Your task to perform on an android device: Clear the cart on ebay. Add razer blade to the cart on ebay, then select checkout. Image 0: 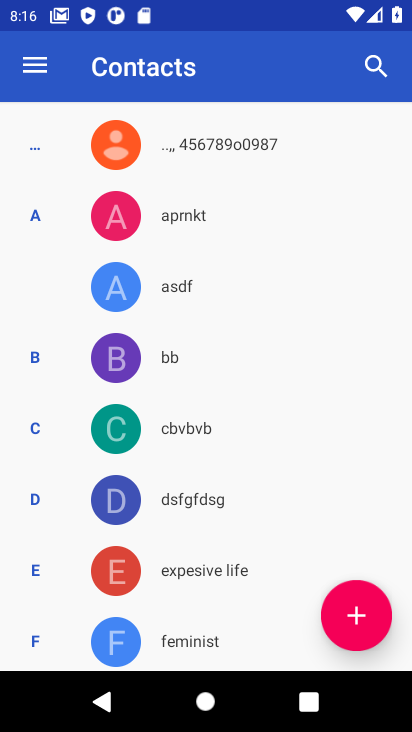
Step 0: press home button
Your task to perform on an android device: Clear the cart on ebay. Add razer blade to the cart on ebay, then select checkout. Image 1: 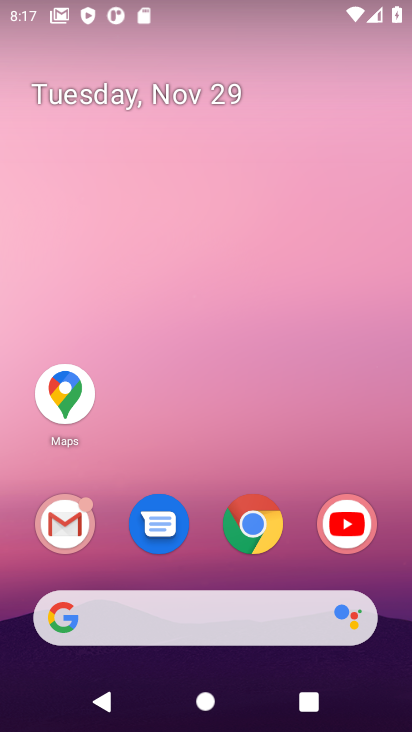
Step 1: click (253, 530)
Your task to perform on an android device: Clear the cart on ebay. Add razer blade to the cart on ebay, then select checkout. Image 2: 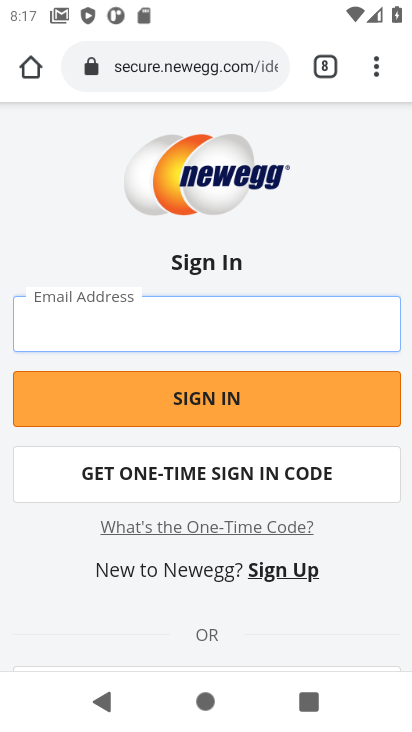
Step 2: click (199, 63)
Your task to perform on an android device: Clear the cart on ebay. Add razer blade to the cart on ebay, then select checkout. Image 3: 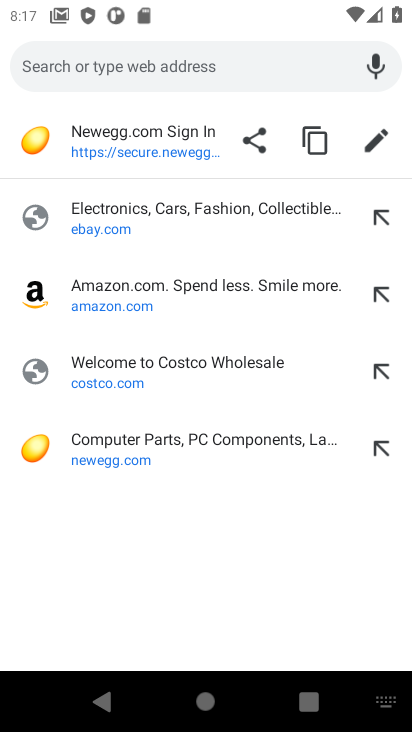
Step 3: click (85, 222)
Your task to perform on an android device: Clear the cart on ebay. Add razer blade to the cart on ebay, then select checkout. Image 4: 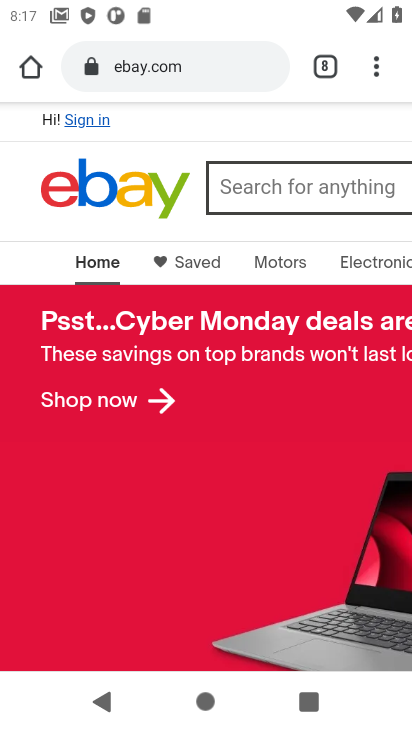
Step 4: drag from (203, 130) to (0, 207)
Your task to perform on an android device: Clear the cart on ebay. Add razer blade to the cart on ebay, then select checkout. Image 5: 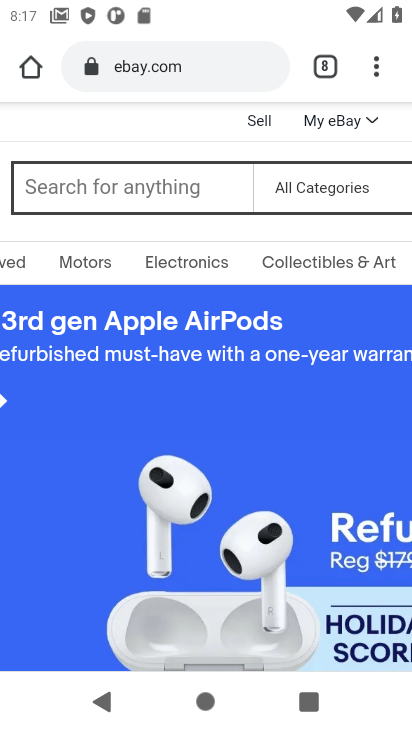
Step 5: drag from (344, 233) to (90, 241)
Your task to perform on an android device: Clear the cart on ebay. Add razer blade to the cart on ebay, then select checkout. Image 6: 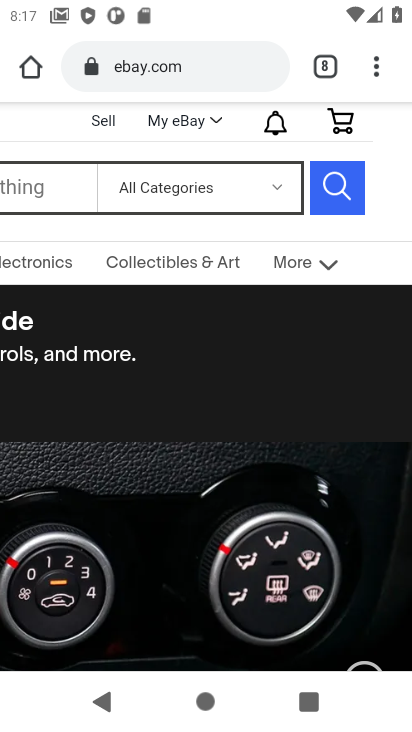
Step 6: click (351, 124)
Your task to perform on an android device: Clear the cart on ebay. Add razer blade to the cart on ebay, then select checkout. Image 7: 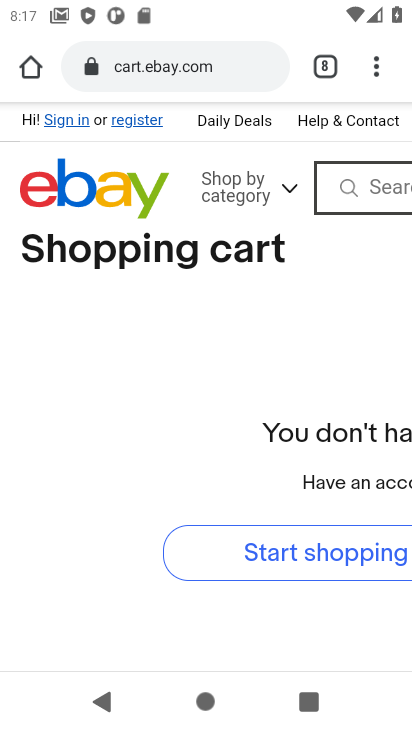
Step 7: click (334, 187)
Your task to perform on an android device: Clear the cart on ebay. Add razer blade to the cart on ebay, then select checkout. Image 8: 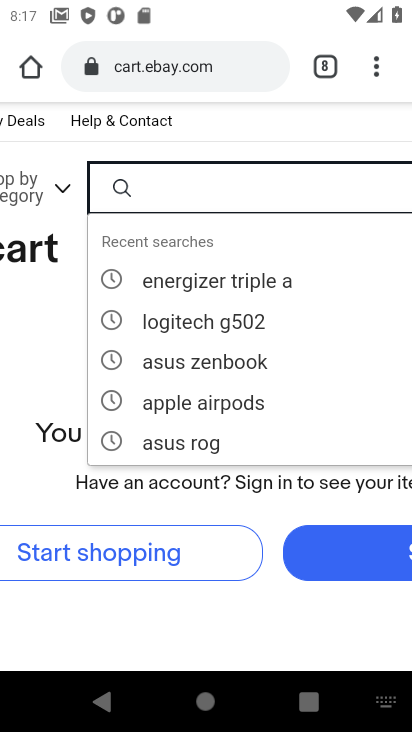
Step 8: type "razer blade"
Your task to perform on an android device: Clear the cart on ebay. Add razer blade to the cart on ebay, then select checkout. Image 9: 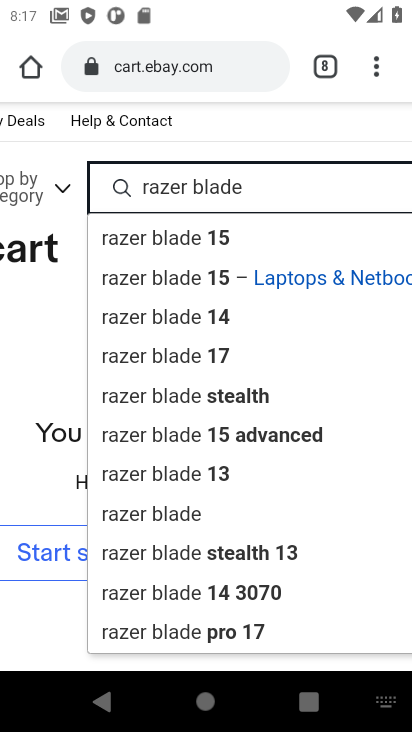
Step 9: click (144, 509)
Your task to perform on an android device: Clear the cart on ebay. Add razer blade to the cart on ebay, then select checkout. Image 10: 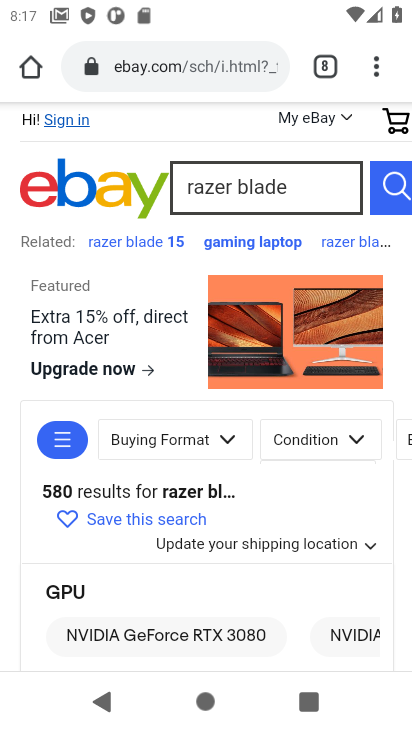
Step 10: drag from (144, 509) to (117, 88)
Your task to perform on an android device: Clear the cart on ebay. Add razer blade to the cart on ebay, then select checkout. Image 11: 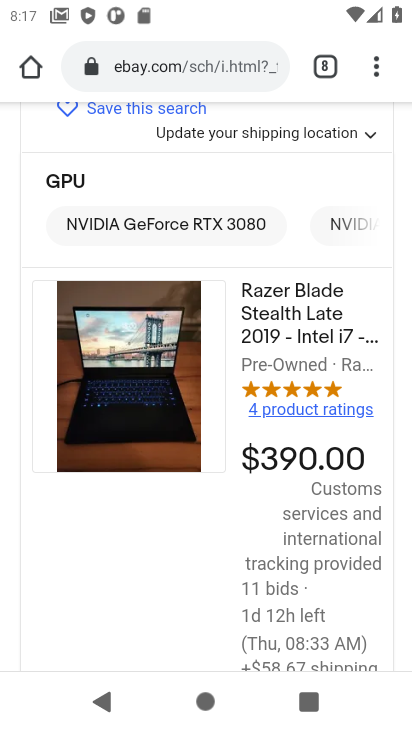
Step 11: click (270, 348)
Your task to perform on an android device: Clear the cart on ebay. Add razer blade to the cart on ebay, then select checkout. Image 12: 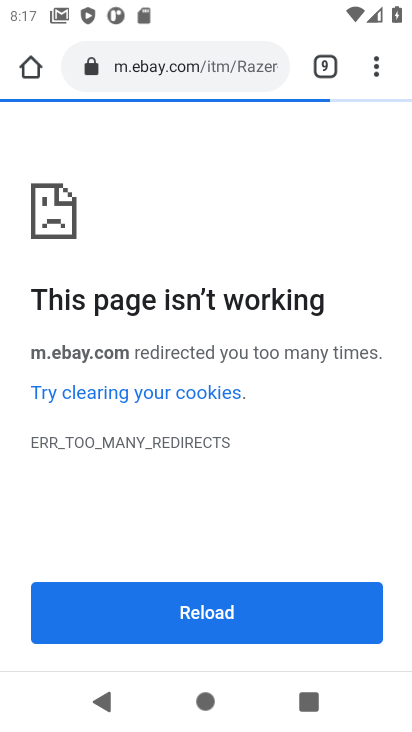
Step 12: task complete